Your task to perform on an android device: Search for dining sets on article.com Image 0: 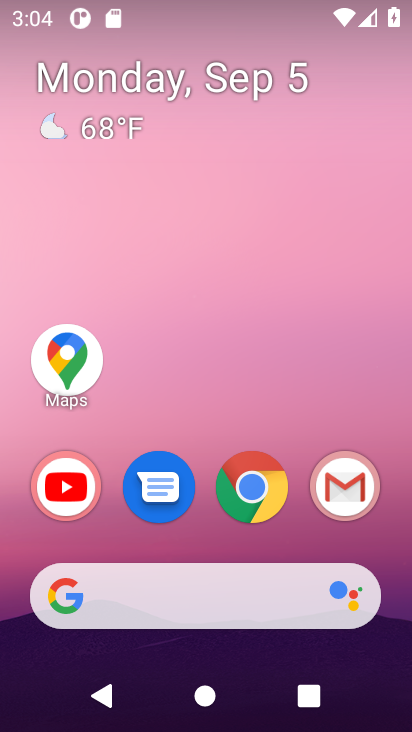
Step 0: click (263, 476)
Your task to perform on an android device: Search for dining sets on article.com Image 1: 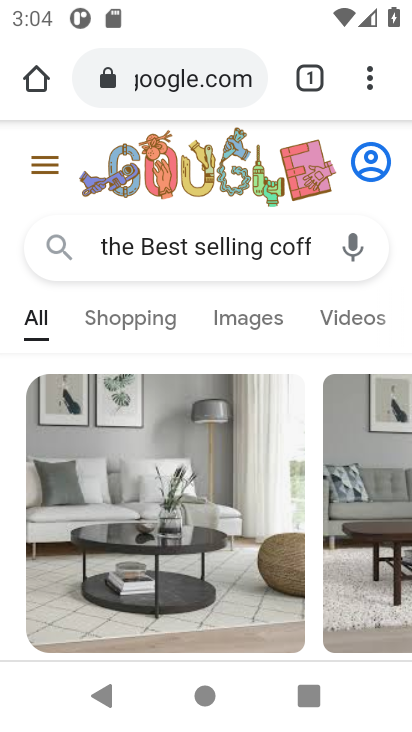
Step 1: click (173, 79)
Your task to perform on an android device: Search for dining sets on article.com Image 2: 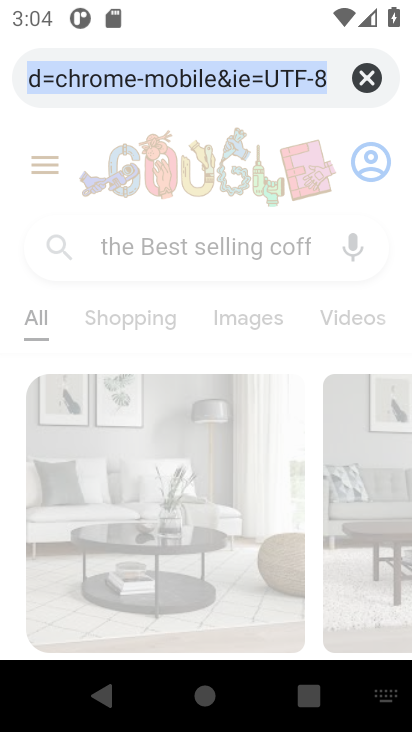
Step 2: click (365, 69)
Your task to perform on an android device: Search for dining sets on article.com Image 3: 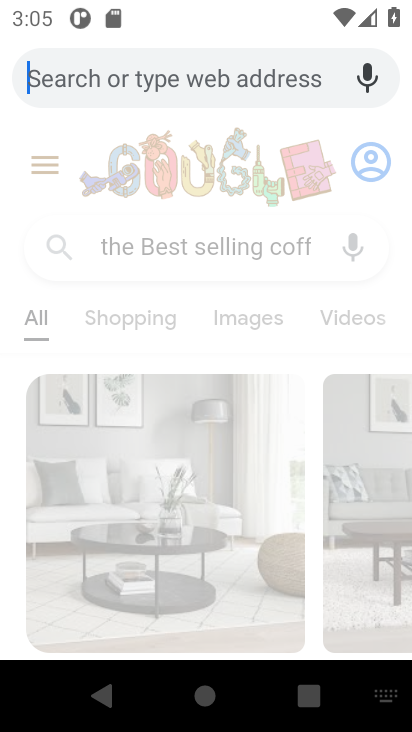
Step 3: type "dining sets on article.com"
Your task to perform on an android device: Search for dining sets on article.com Image 4: 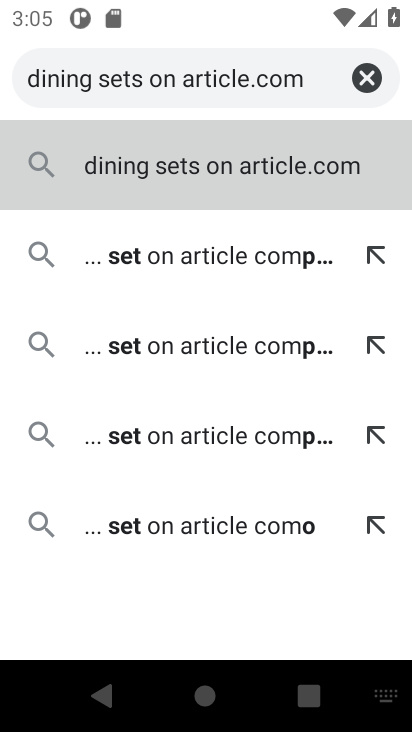
Step 4: click (166, 170)
Your task to perform on an android device: Search for dining sets on article.com Image 5: 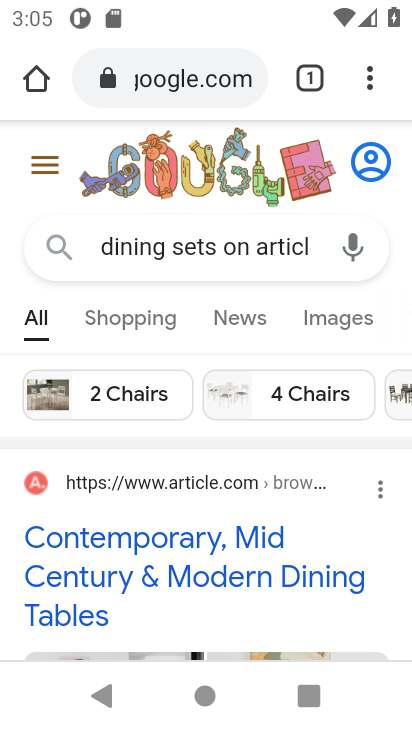
Step 5: task complete